Your task to perform on an android device: Open Chrome and go to settings Image 0: 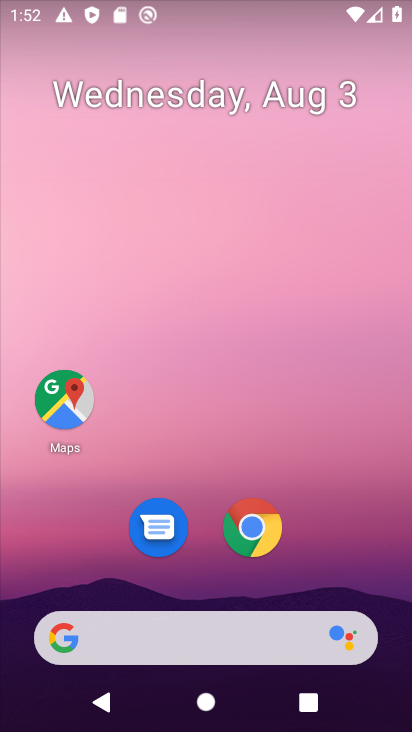
Step 0: click (256, 529)
Your task to perform on an android device: Open Chrome and go to settings Image 1: 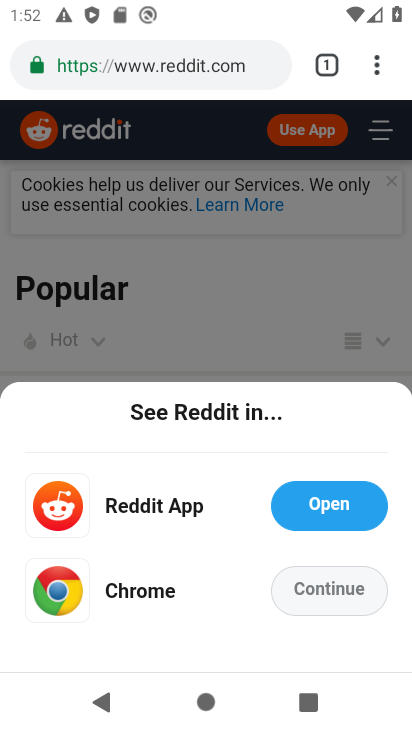
Step 1: click (374, 64)
Your task to perform on an android device: Open Chrome and go to settings Image 2: 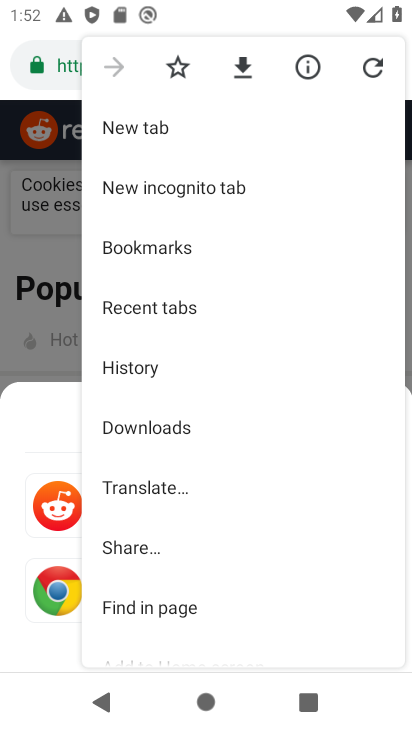
Step 2: drag from (140, 512) to (119, 217)
Your task to perform on an android device: Open Chrome and go to settings Image 3: 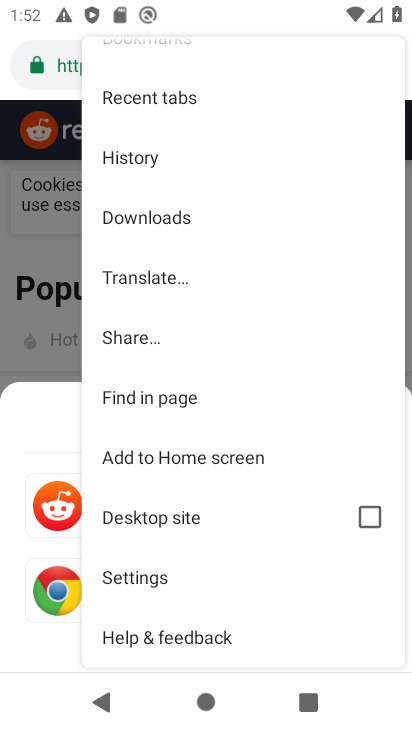
Step 3: click (141, 574)
Your task to perform on an android device: Open Chrome and go to settings Image 4: 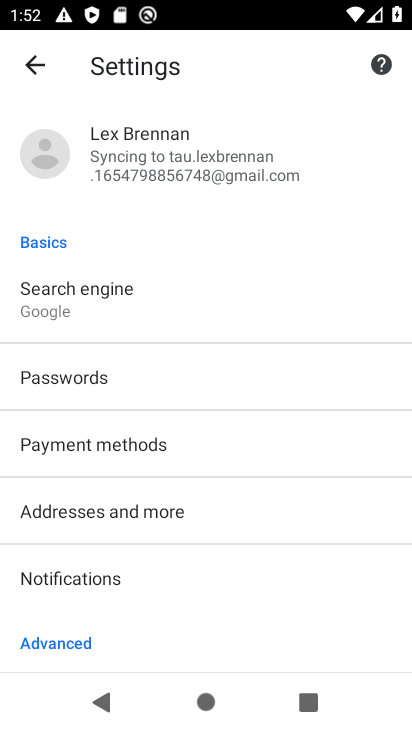
Step 4: task complete